Your task to perform on an android device: check the backup settings in the google photos Image 0: 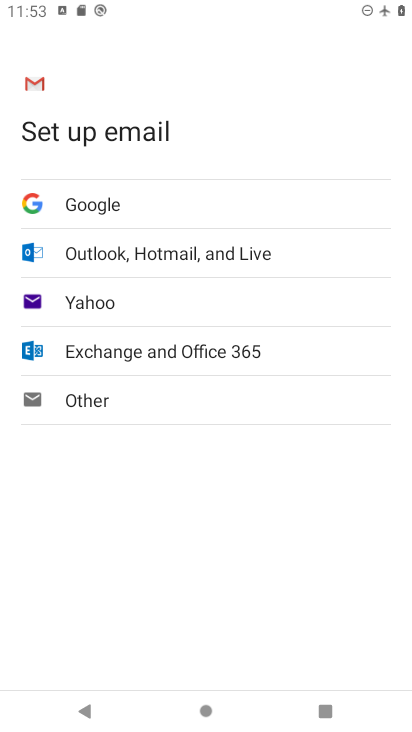
Step 0: press home button
Your task to perform on an android device: check the backup settings in the google photos Image 1: 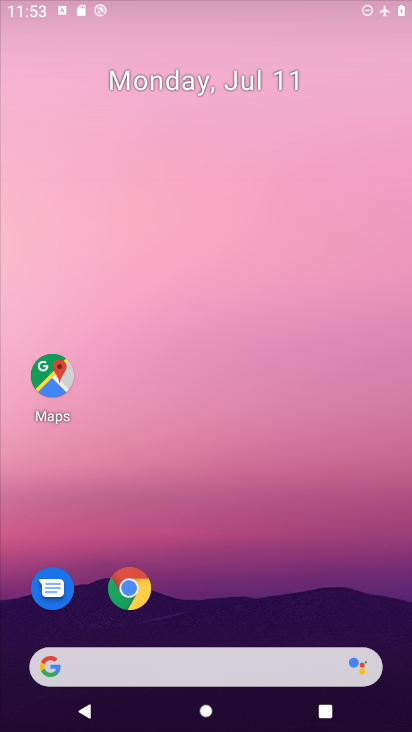
Step 1: drag from (383, 685) to (262, 55)
Your task to perform on an android device: check the backup settings in the google photos Image 2: 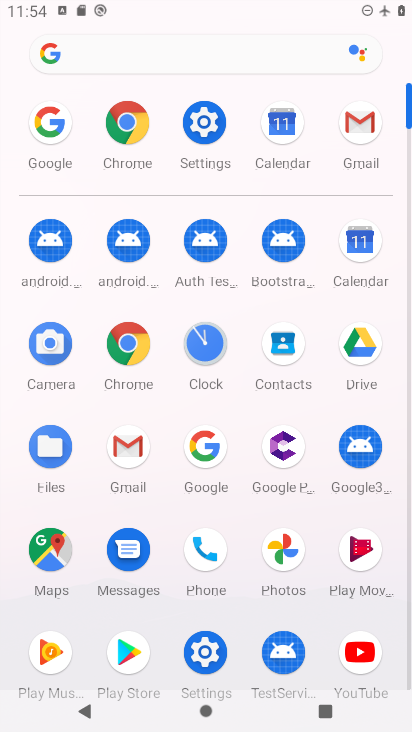
Step 2: click (275, 552)
Your task to perform on an android device: check the backup settings in the google photos Image 3: 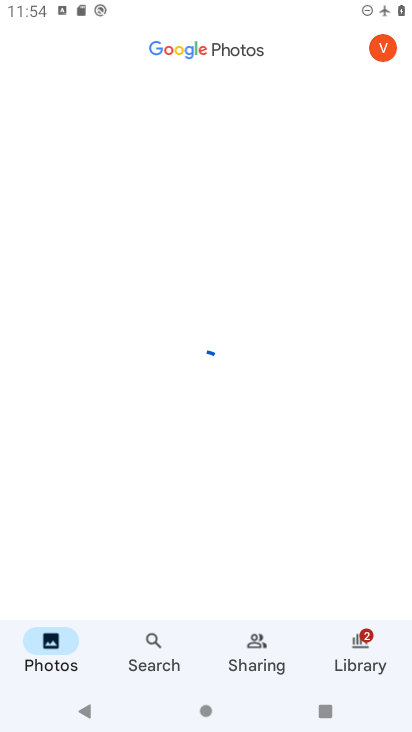
Step 3: click (380, 44)
Your task to perform on an android device: check the backup settings in the google photos Image 4: 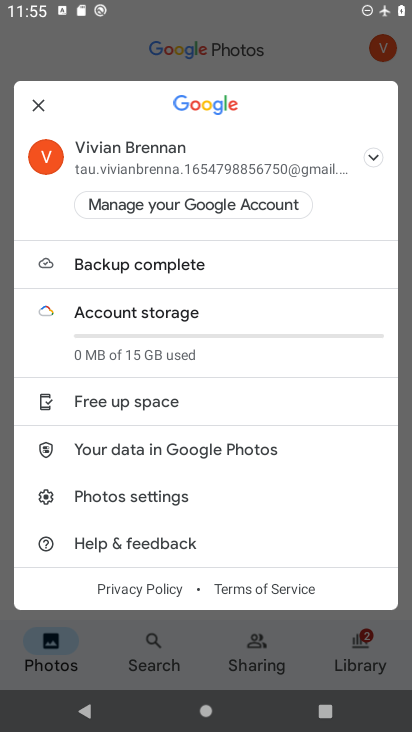
Step 4: click (173, 264)
Your task to perform on an android device: check the backup settings in the google photos Image 5: 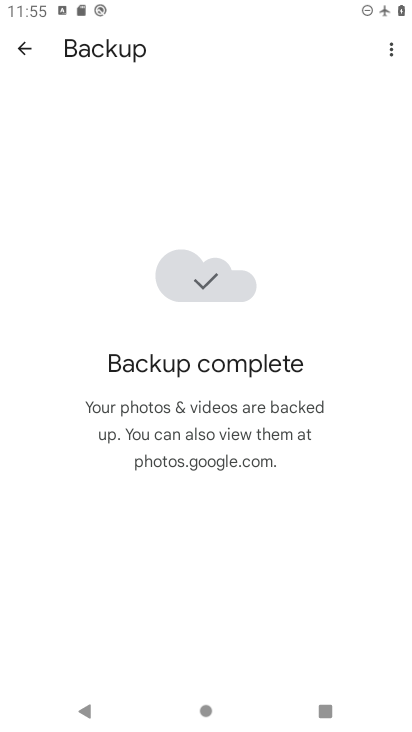
Step 5: task complete